Your task to perform on an android device: Go to Android settings Image 0: 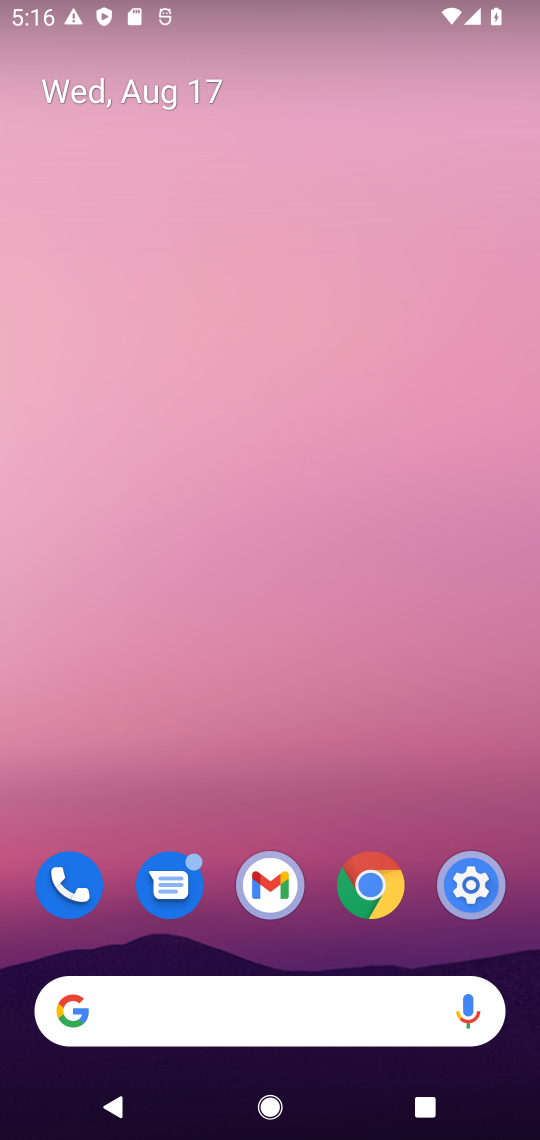
Step 0: drag from (417, 676) to (525, 25)
Your task to perform on an android device: Go to Android settings Image 1: 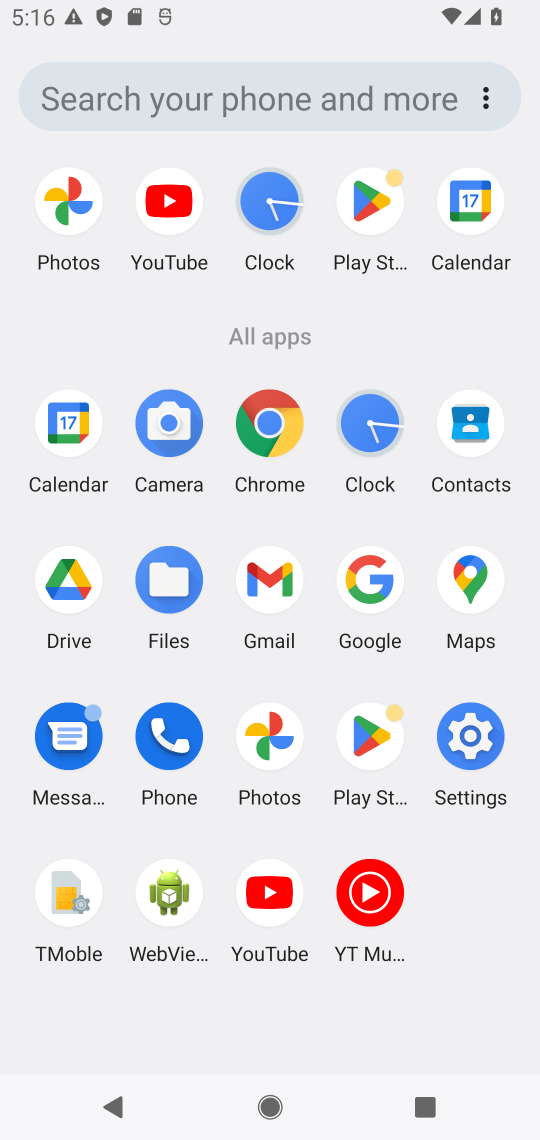
Step 1: click (477, 741)
Your task to perform on an android device: Go to Android settings Image 2: 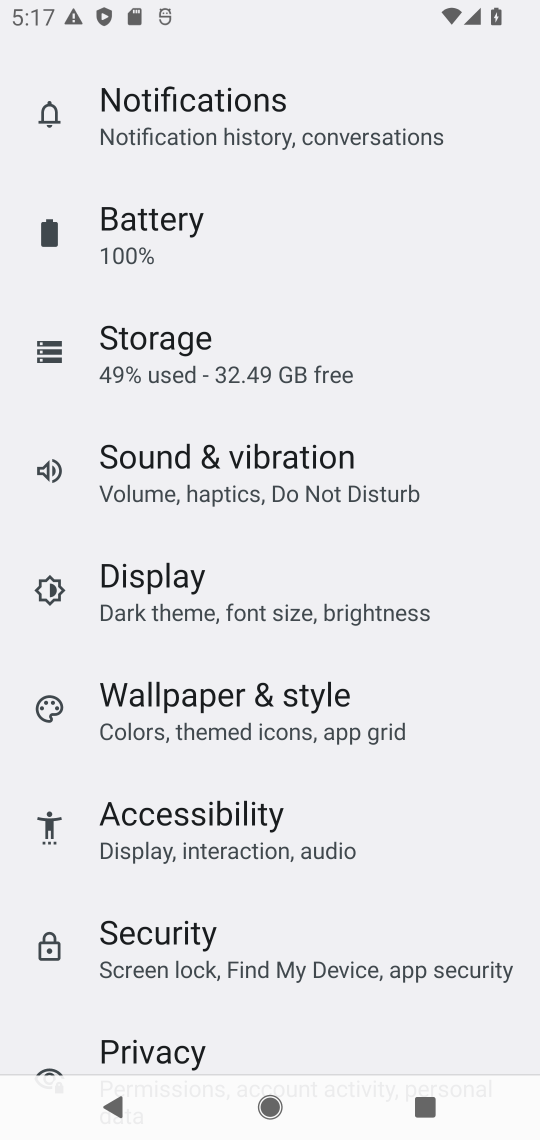
Step 2: task complete